Your task to perform on an android device: clear all cookies in the chrome app Image 0: 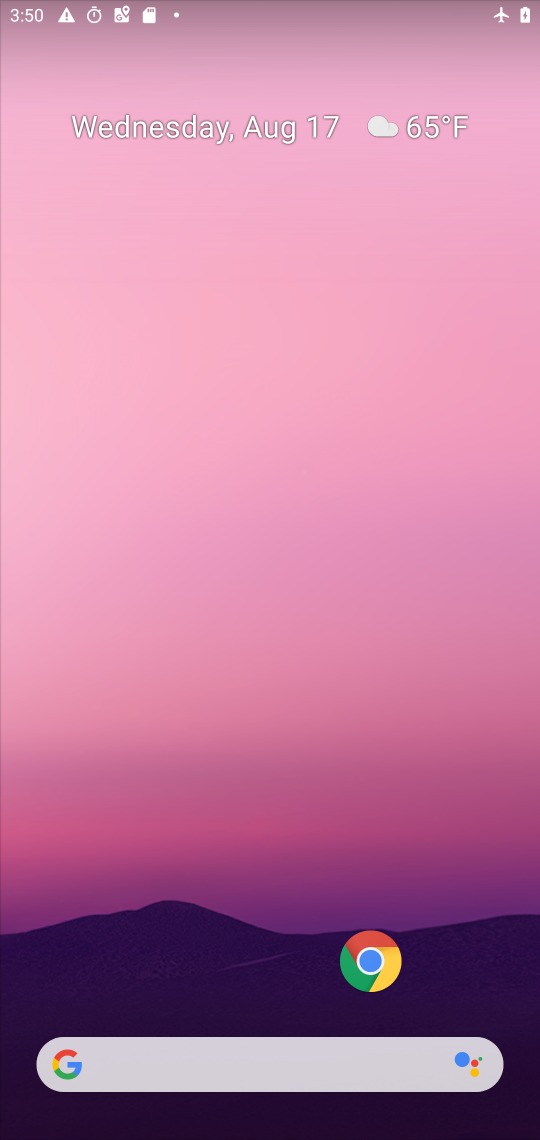
Step 0: drag from (231, 384) to (247, 235)
Your task to perform on an android device: clear all cookies in the chrome app Image 1: 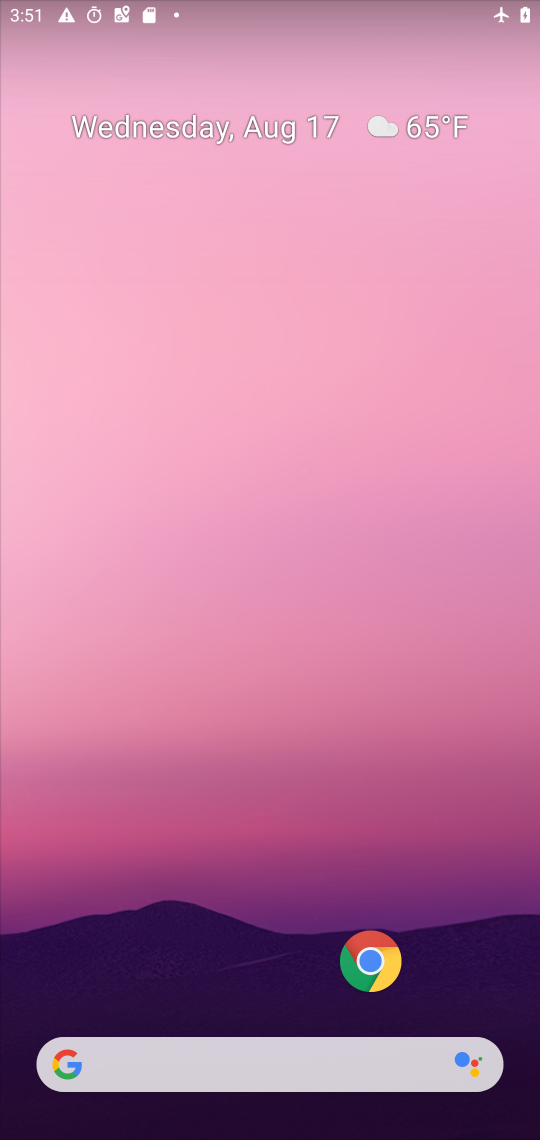
Step 1: click (365, 946)
Your task to perform on an android device: clear all cookies in the chrome app Image 2: 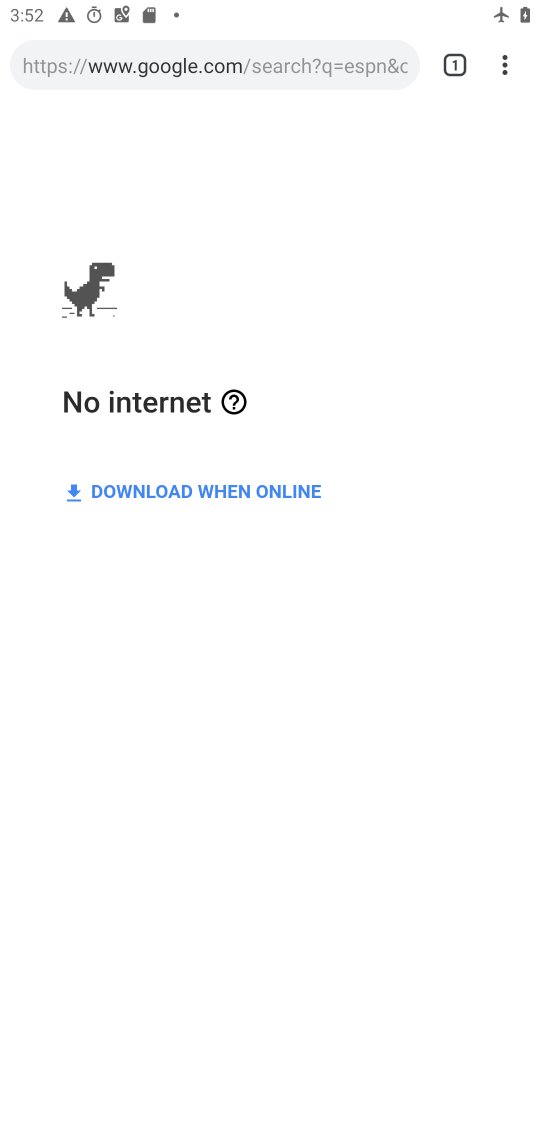
Step 2: click (496, 72)
Your task to perform on an android device: clear all cookies in the chrome app Image 3: 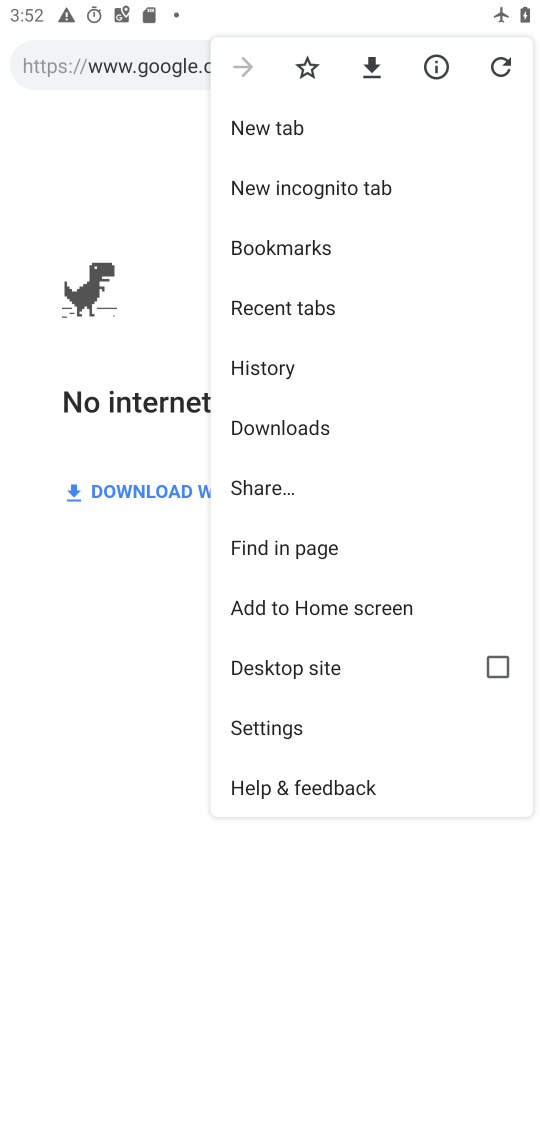
Step 3: click (277, 366)
Your task to perform on an android device: clear all cookies in the chrome app Image 4: 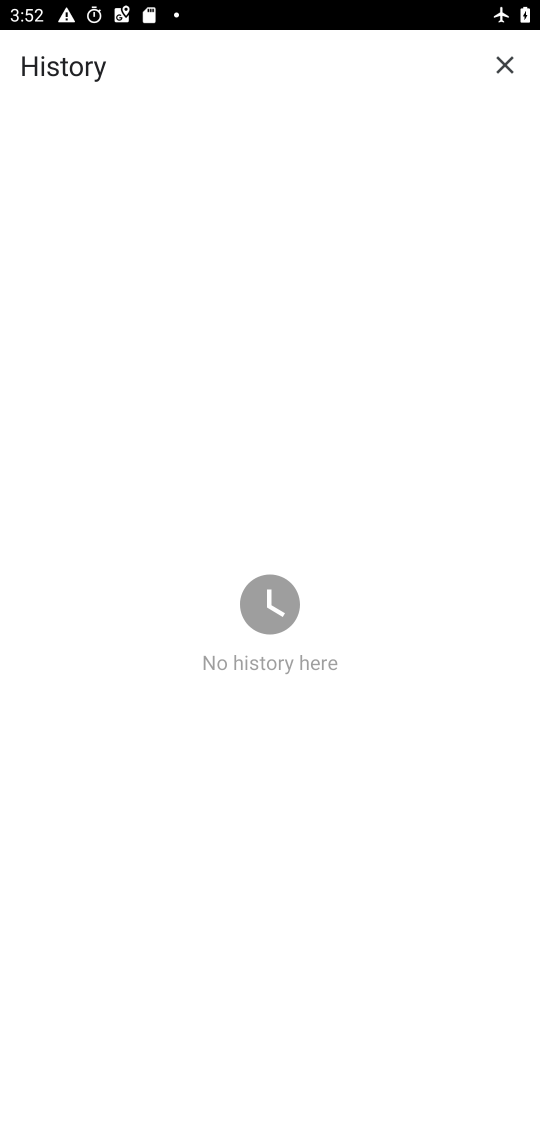
Step 4: task complete